Your task to perform on an android device: check data usage Image 0: 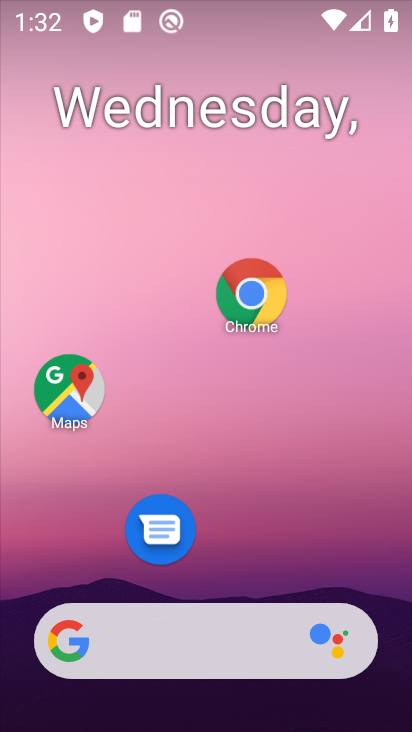
Step 0: drag from (263, 608) to (326, 50)
Your task to perform on an android device: check data usage Image 1: 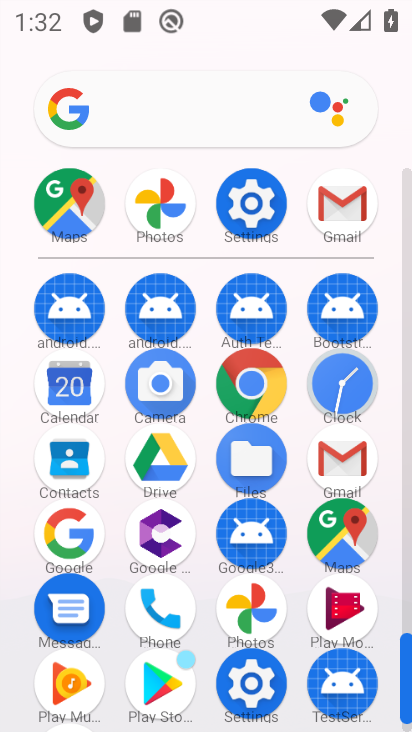
Step 1: click (263, 209)
Your task to perform on an android device: check data usage Image 2: 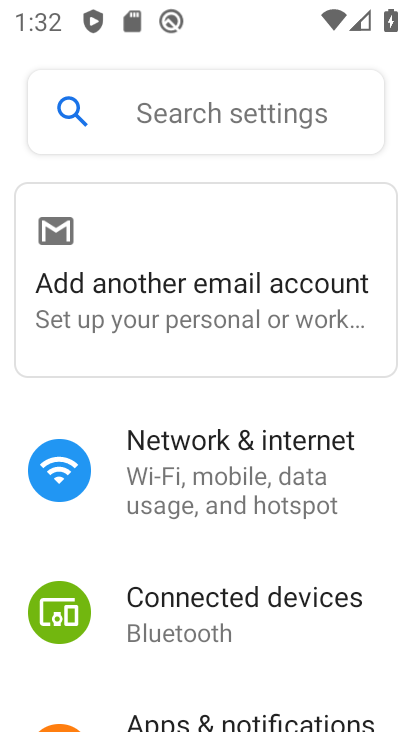
Step 2: drag from (232, 603) to (262, 223)
Your task to perform on an android device: check data usage Image 3: 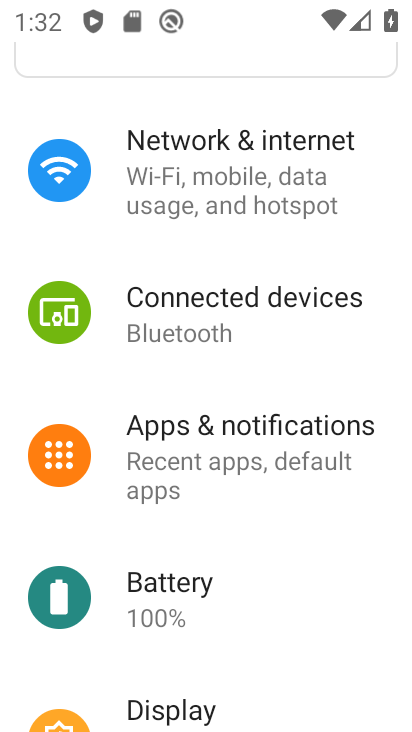
Step 3: click (272, 188)
Your task to perform on an android device: check data usage Image 4: 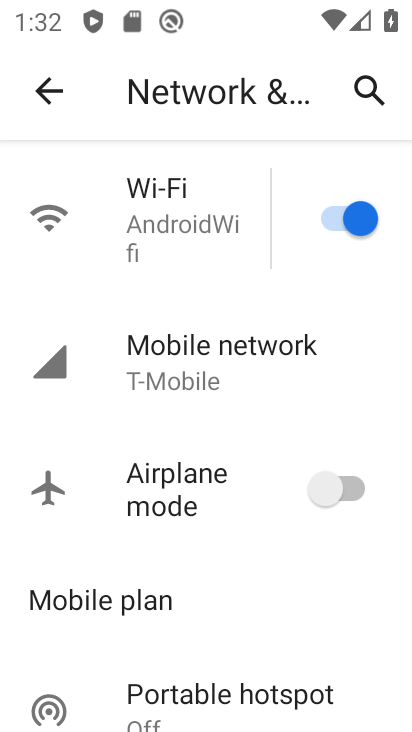
Step 4: click (238, 384)
Your task to perform on an android device: check data usage Image 5: 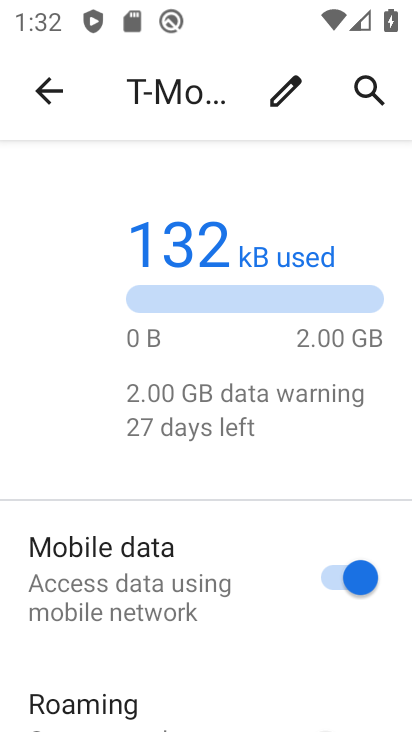
Step 5: drag from (184, 562) to (241, 284)
Your task to perform on an android device: check data usage Image 6: 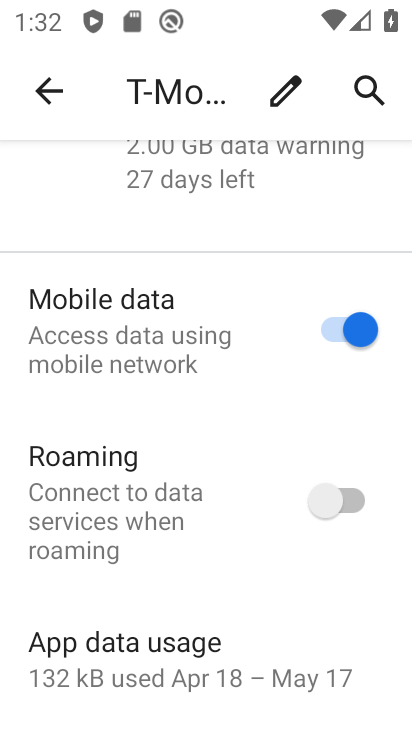
Step 6: click (216, 637)
Your task to perform on an android device: check data usage Image 7: 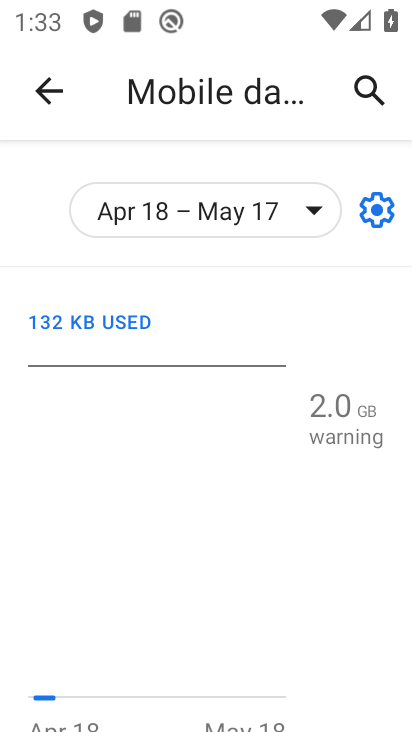
Step 7: task complete